Your task to perform on an android device: Go to battery settings Image 0: 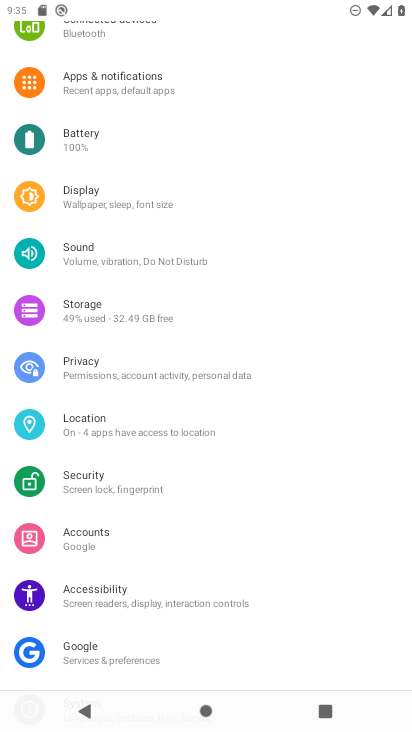
Step 0: drag from (193, 10) to (233, 306)
Your task to perform on an android device: Go to battery settings Image 1: 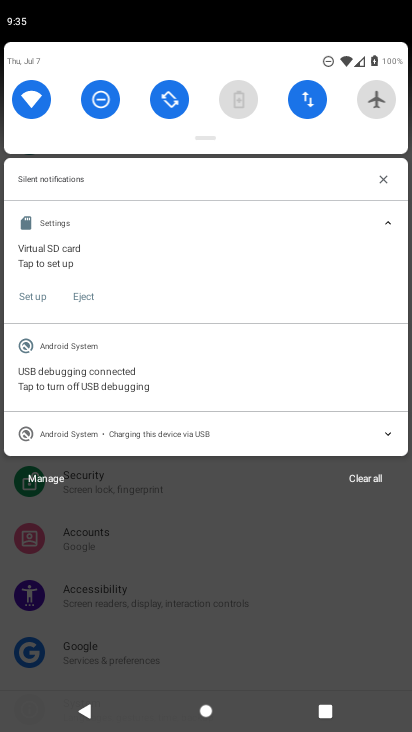
Step 1: click (226, 96)
Your task to perform on an android device: Go to battery settings Image 2: 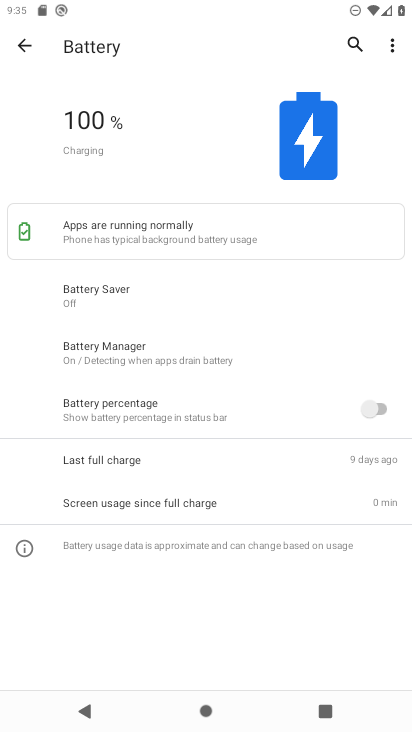
Step 2: task complete